Your task to perform on an android device: Open settings Image 0: 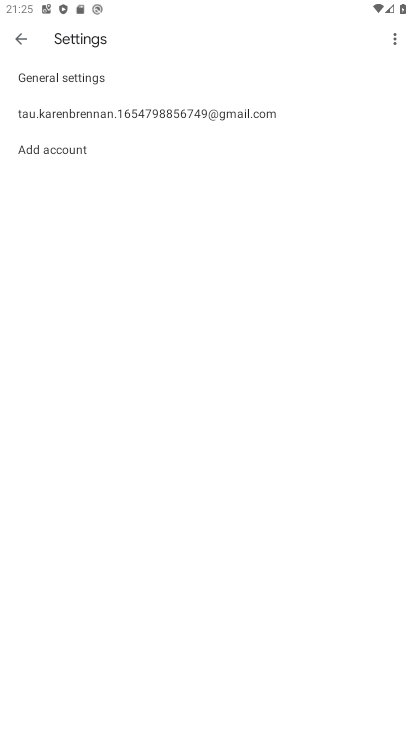
Step 0: press home button
Your task to perform on an android device: Open settings Image 1: 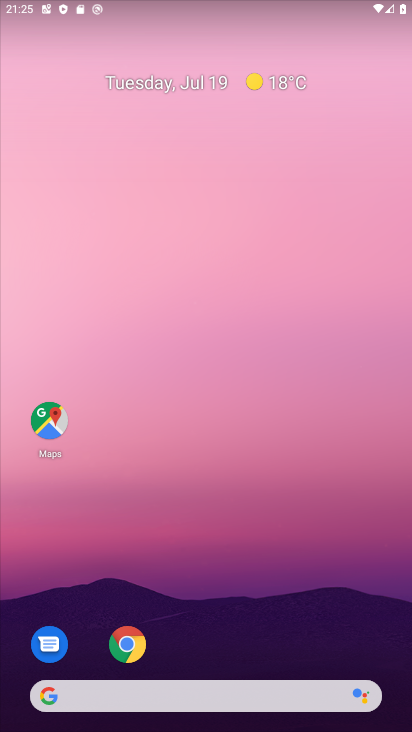
Step 1: drag from (221, 623) to (239, 138)
Your task to perform on an android device: Open settings Image 2: 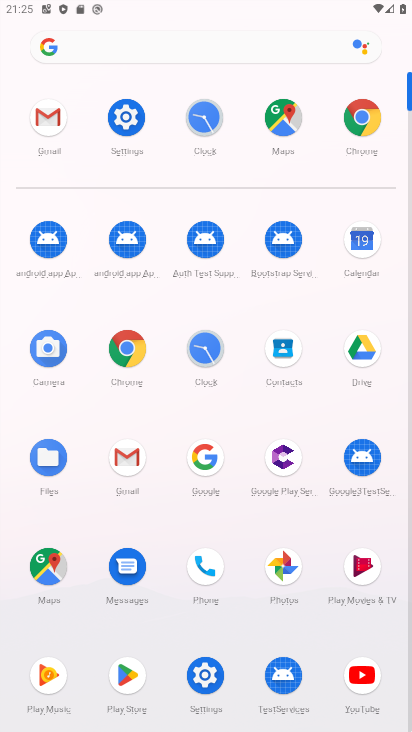
Step 2: click (132, 113)
Your task to perform on an android device: Open settings Image 3: 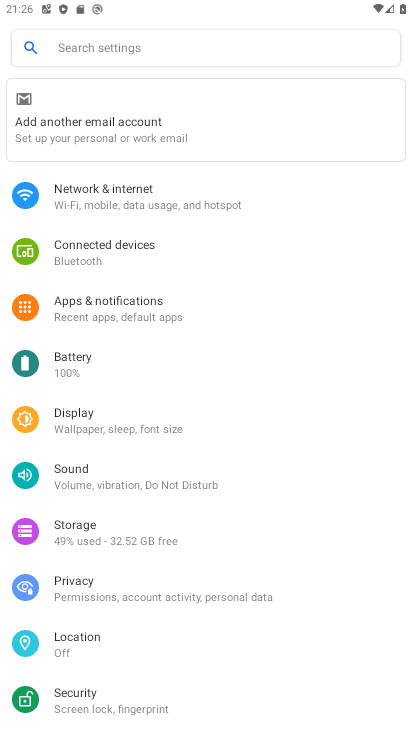
Step 3: task complete